Your task to perform on an android device: Go to Android settings Image 0: 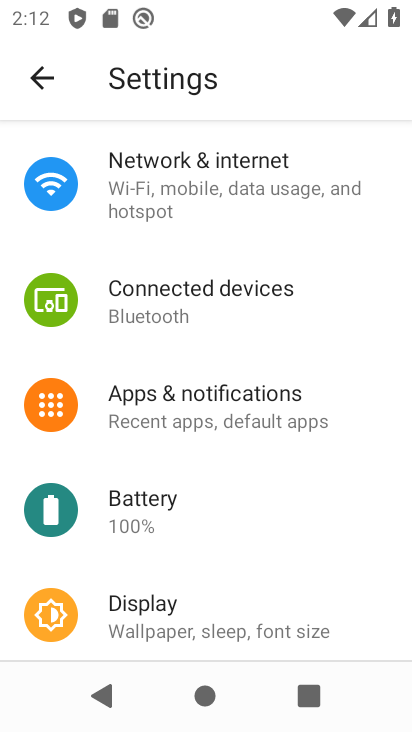
Step 0: drag from (265, 585) to (302, 150)
Your task to perform on an android device: Go to Android settings Image 1: 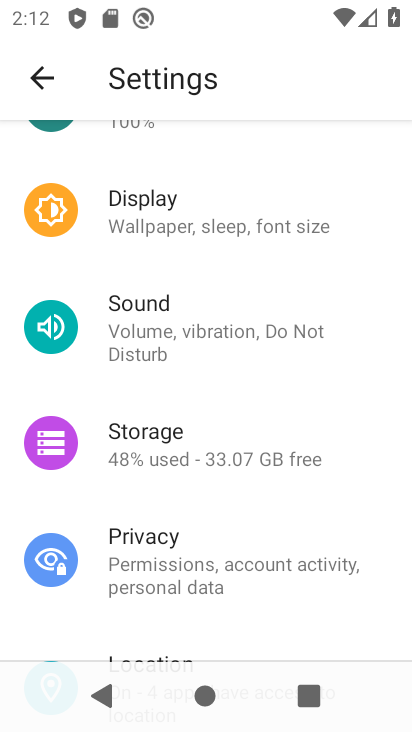
Step 1: drag from (236, 514) to (278, 120)
Your task to perform on an android device: Go to Android settings Image 2: 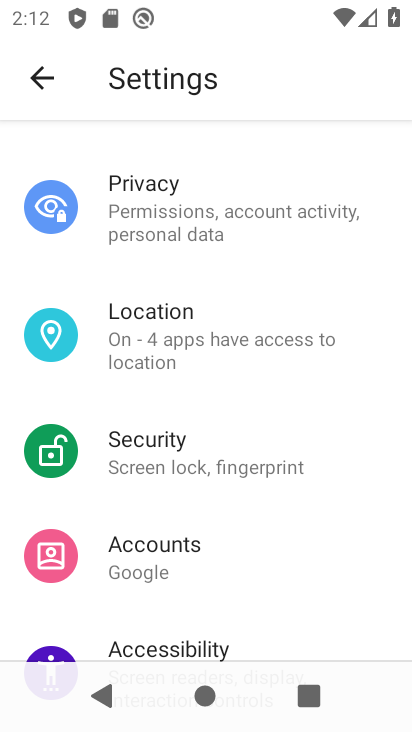
Step 2: drag from (194, 537) to (234, 138)
Your task to perform on an android device: Go to Android settings Image 3: 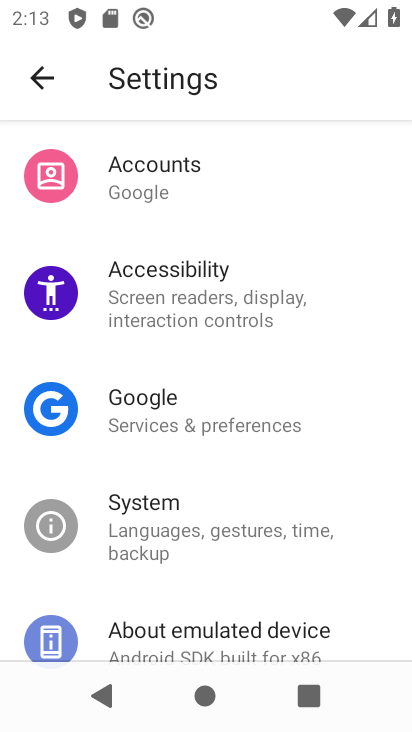
Step 3: drag from (195, 582) to (230, 153)
Your task to perform on an android device: Go to Android settings Image 4: 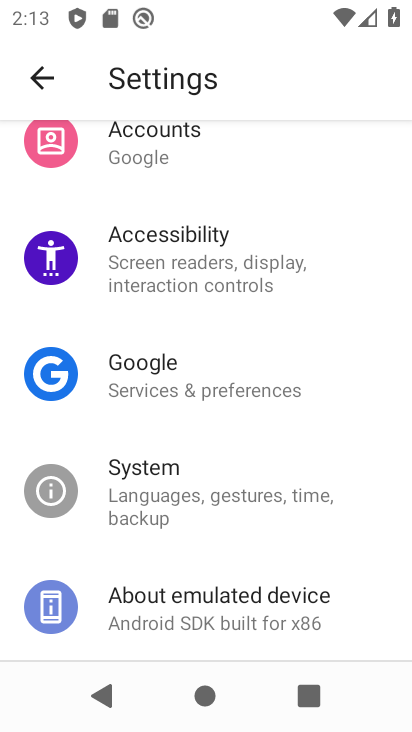
Step 4: click (214, 604)
Your task to perform on an android device: Go to Android settings Image 5: 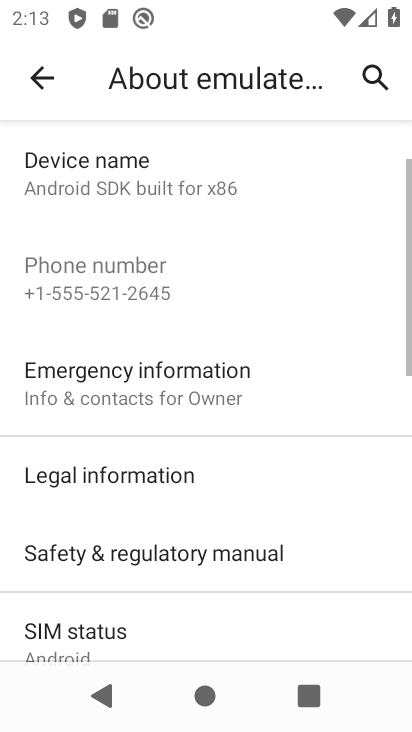
Step 5: task complete